Your task to perform on an android device: Search for usb-c to usb-b on costco, select the first entry, and add it to the cart. Image 0: 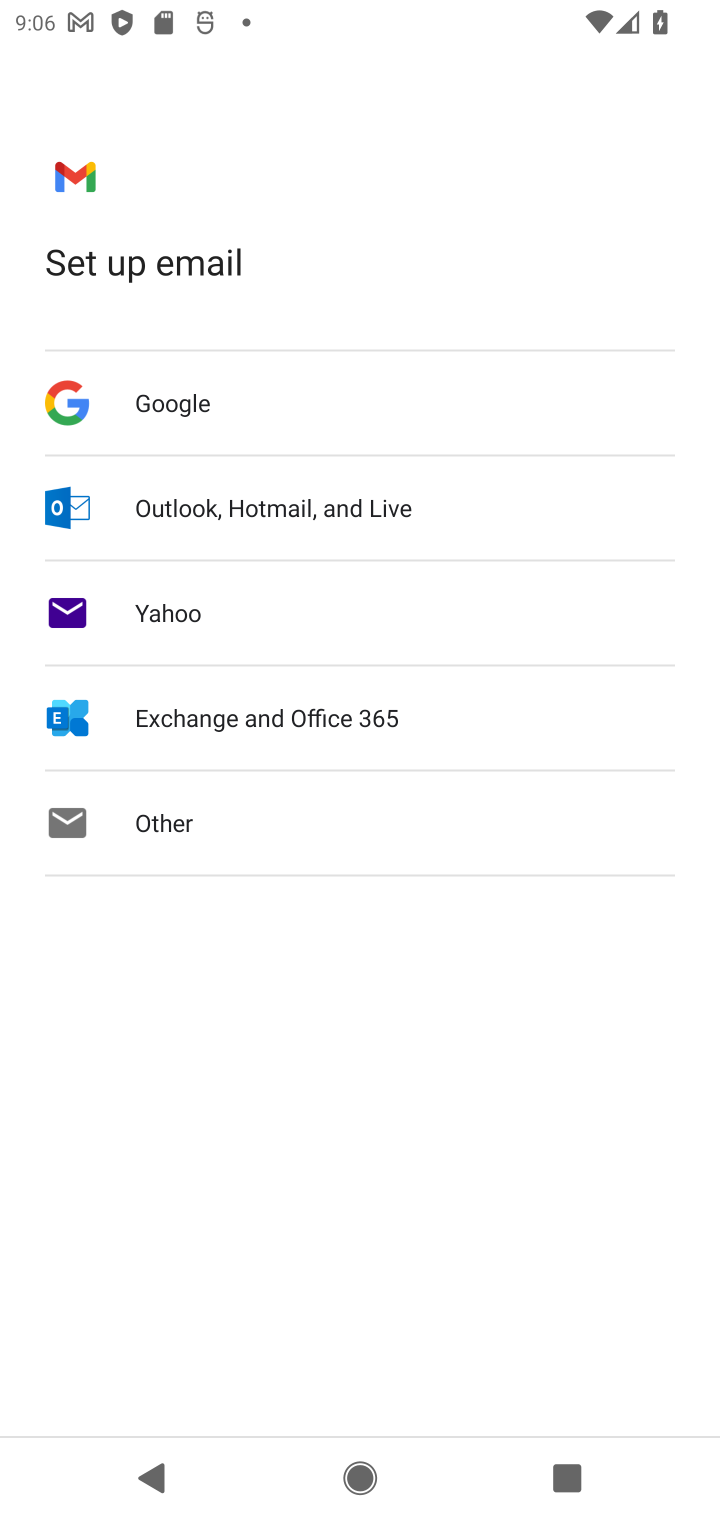
Step 0: press home button
Your task to perform on an android device: Search for usb-c to usb-b on costco, select the first entry, and add it to the cart. Image 1: 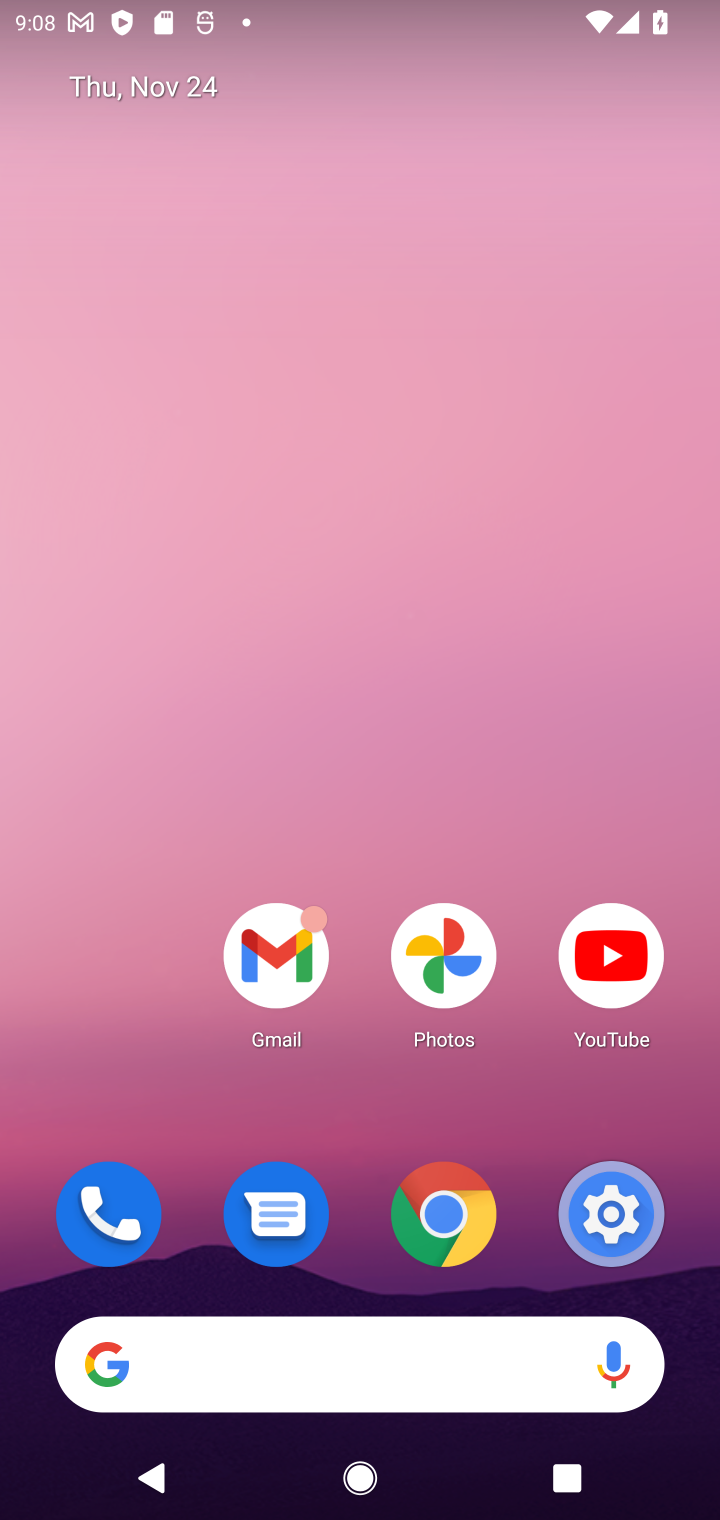
Step 1: click (382, 1369)
Your task to perform on an android device: Search for usb-c to usb-b on costco, select the first entry, and add it to the cart. Image 2: 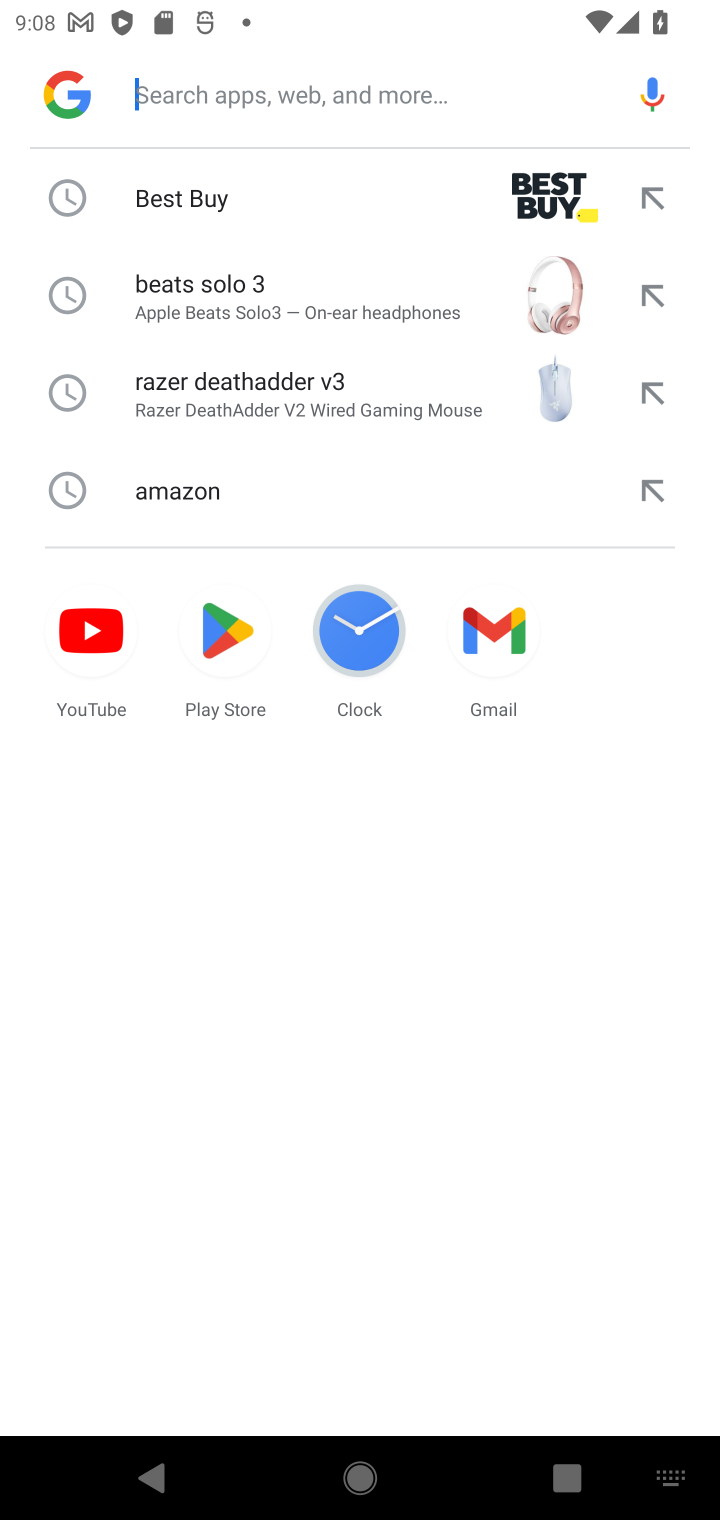
Step 2: type "costco.com"
Your task to perform on an android device: Search for usb-c to usb-b on costco, select the first entry, and add it to the cart. Image 3: 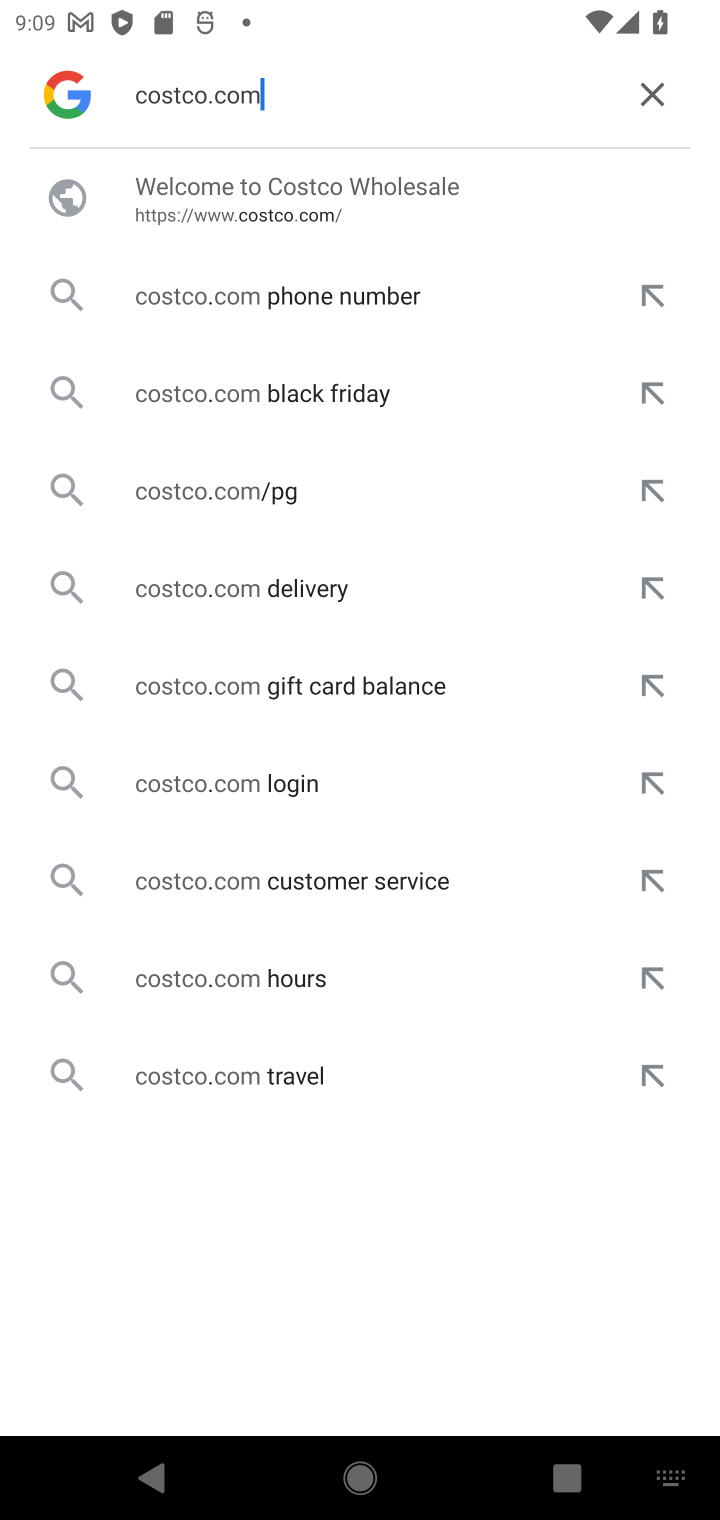
Step 3: click (303, 217)
Your task to perform on an android device: Search for usb-c to usb-b on costco, select the first entry, and add it to the cart. Image 4: 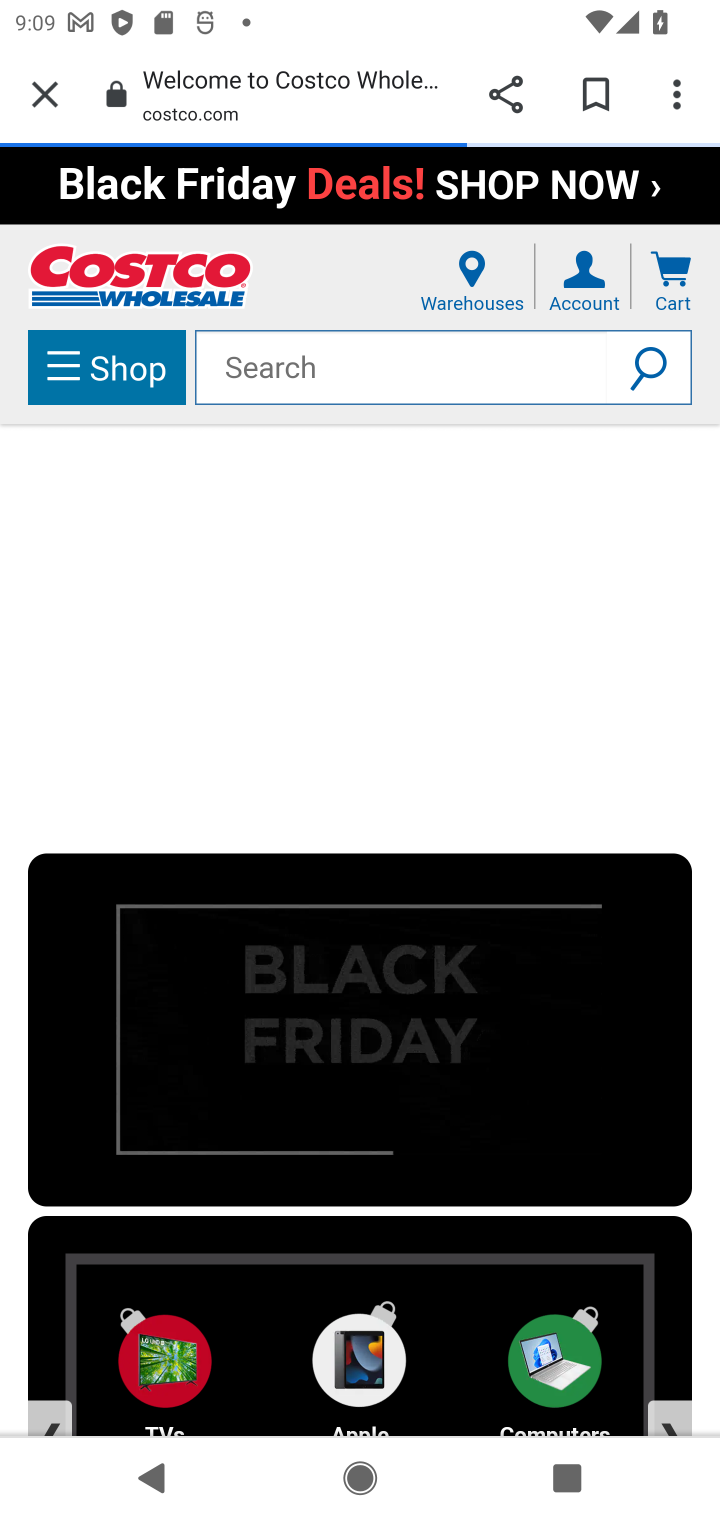
Step 4: click (472, 359)
Your task to perform on an android device: Search for usb-c to usb-b on costco, select the first entry, and add it to the cart. Image 5: 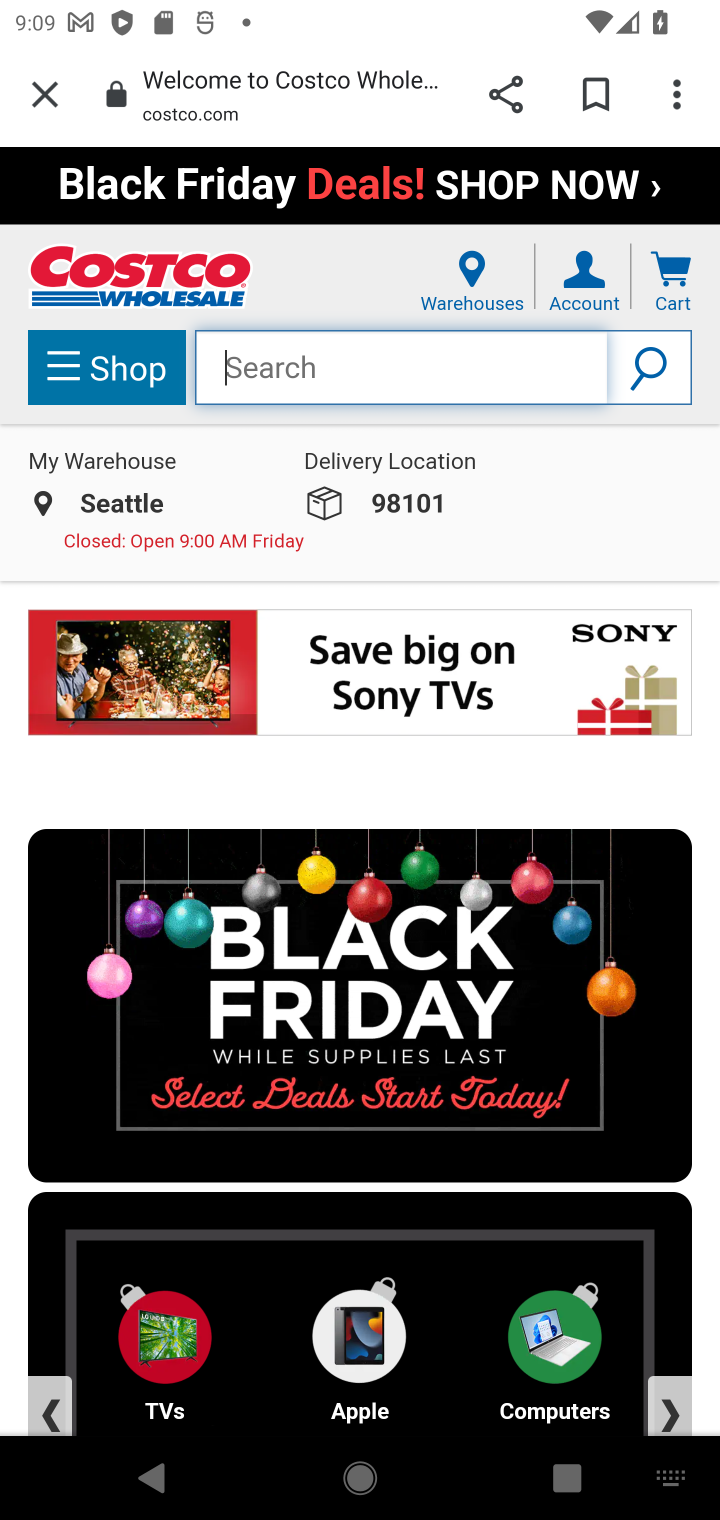
Step 5: type "usb-c to usb-b"
Your task to perform on an android device: Search for usb-c to usb-b on costco, select the first entry, and add it to the cart. Image 6: 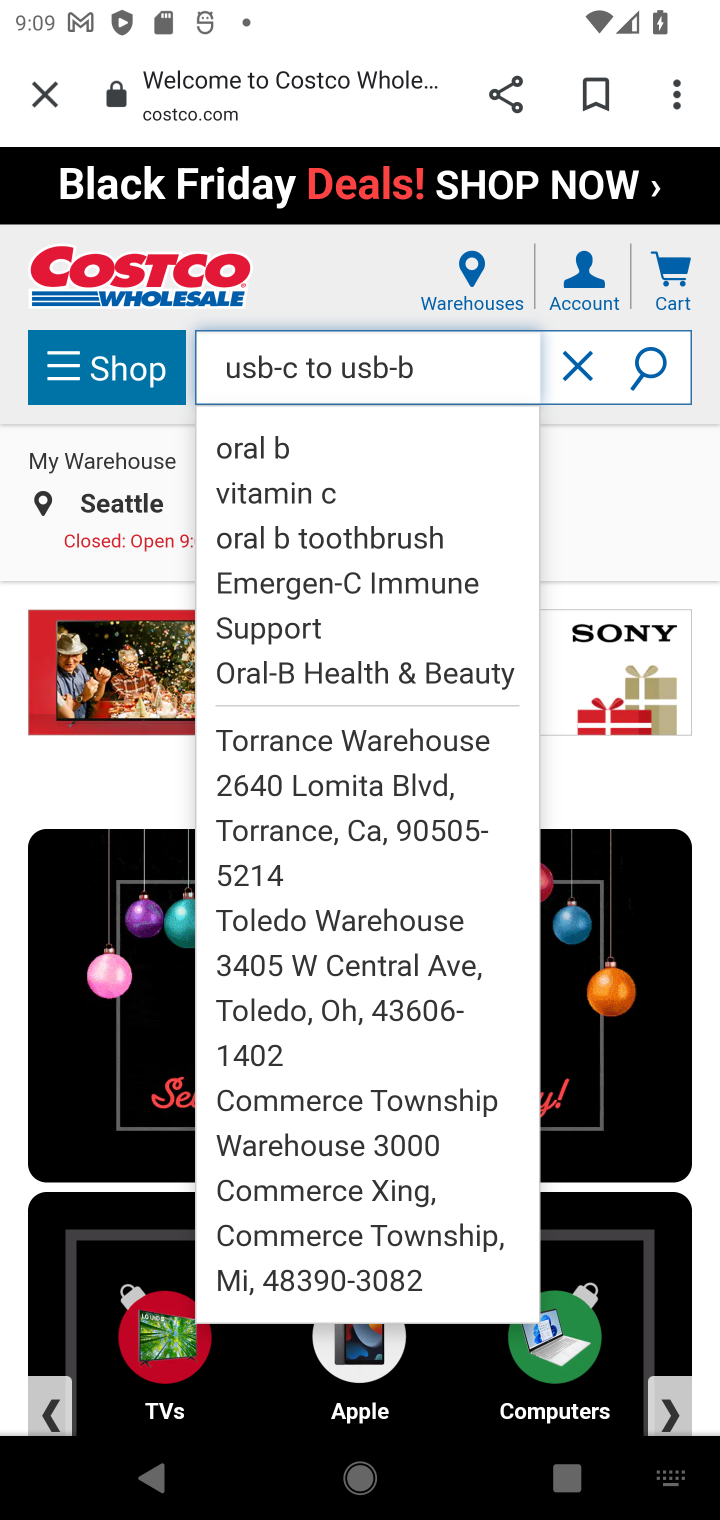
Step 6: click (649, 377)
Your task to perform on an android device: Search for usb-c to usb-b on costco, select the first entry, and add it to the cart. Image 7: 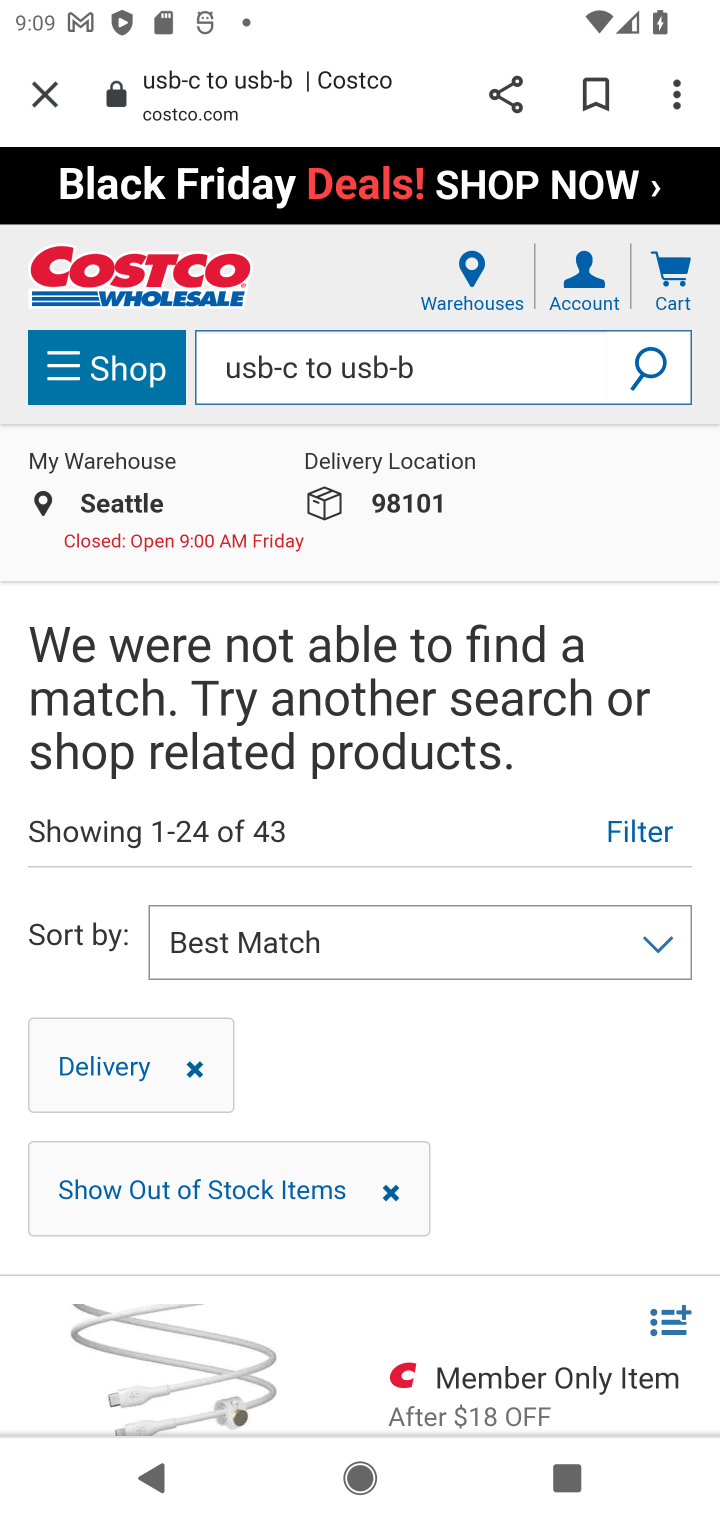
Step 7: drag from (401, 1081) to (444, 436)
Your task to perform on an android device: Search for usb-c to usb-b on costco, select the first entry, and add it to the cart. Image 8: 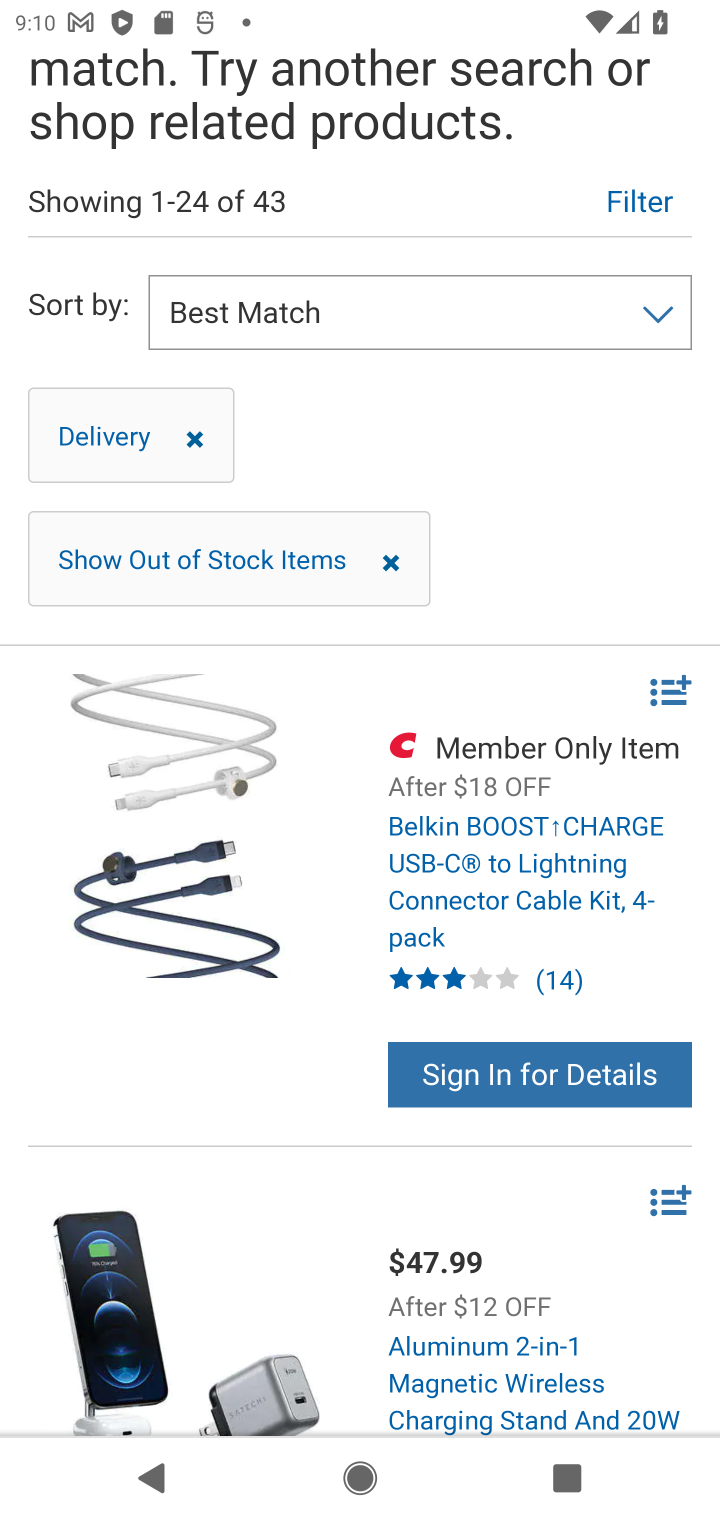
Step 8: click (452, 906)
Your task to perform on an android device: Search for usb-c to usb-b on costco, select the first entry, and add it to the cart. Image 9: 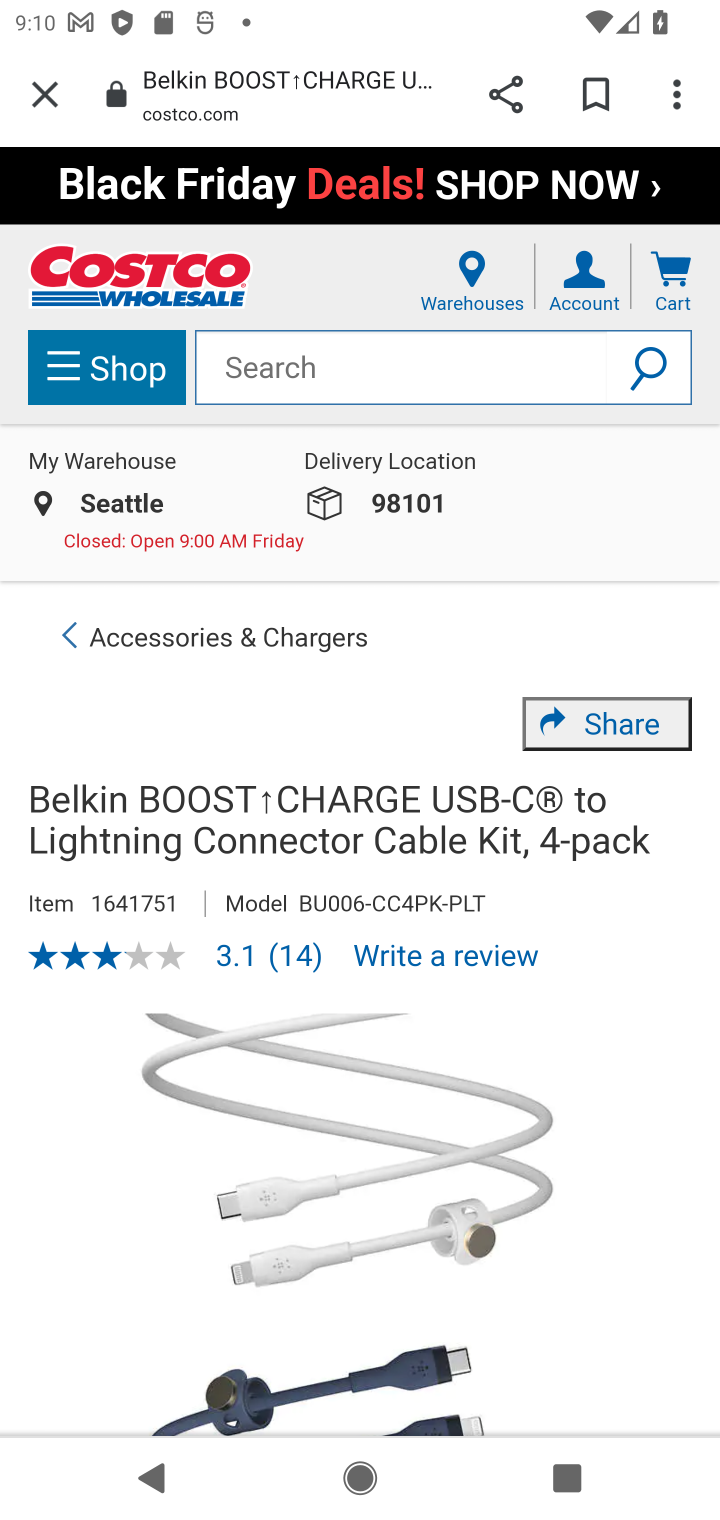
Step 9: task complete